Your task to perform on an android device: Open Reddit.com Image 0: 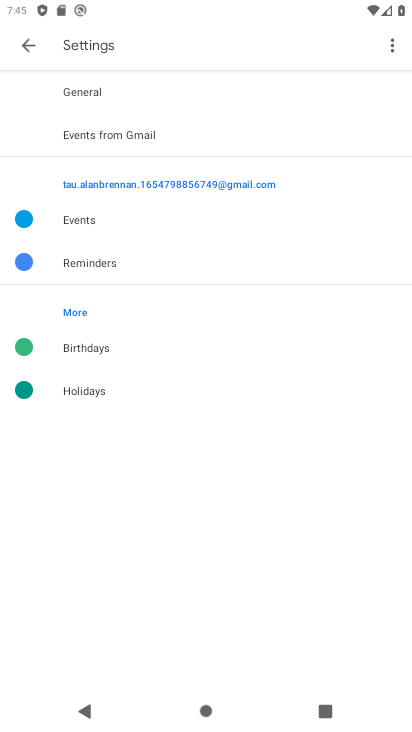
Step 0: press home button
Your task to perform on an android device: Open Reddit.com Image 1: 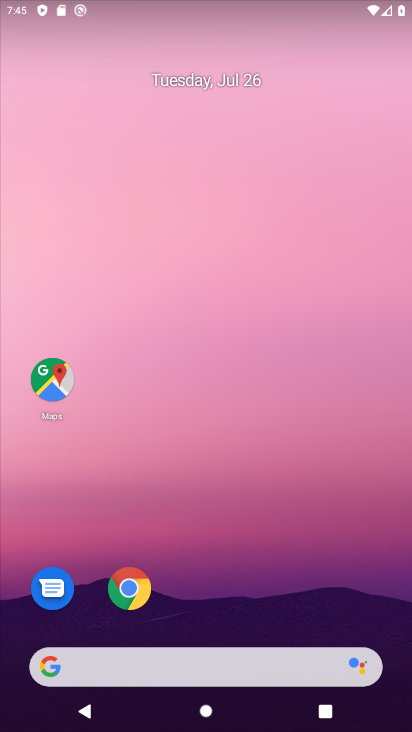
Step 1: drag from (222, 644) to (234, 203)
Your task to perform on an android device: Open Reddit.com Image 2: 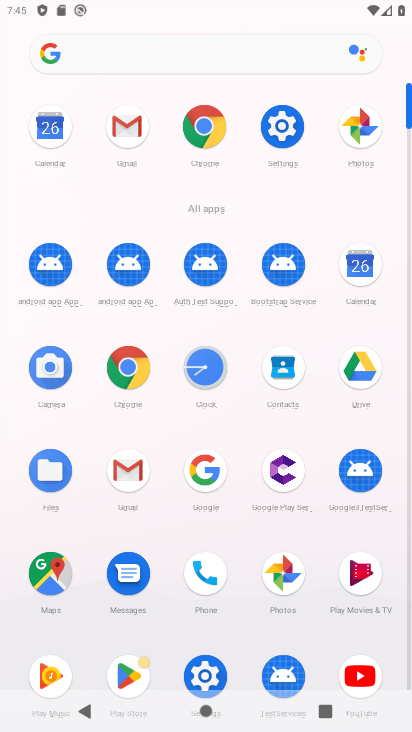
Step 2: click (185, 466)
Your task to perform on an android device: Open Reddit.com Image 3: 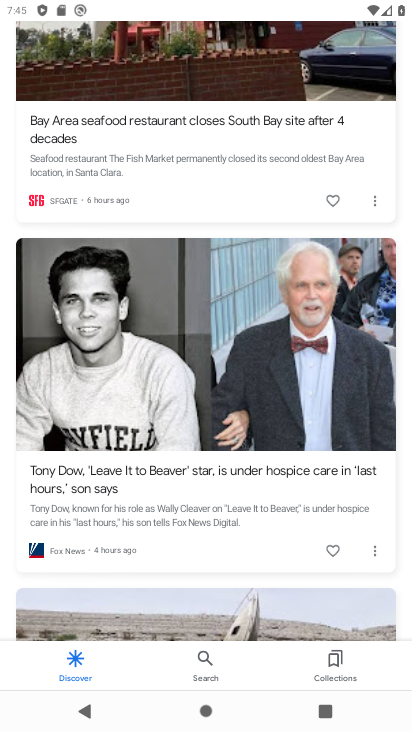
Step 3: drag from (121, 115) to (93, 378)
Your task to perform on an android device: Open Reddit.com Image 4: 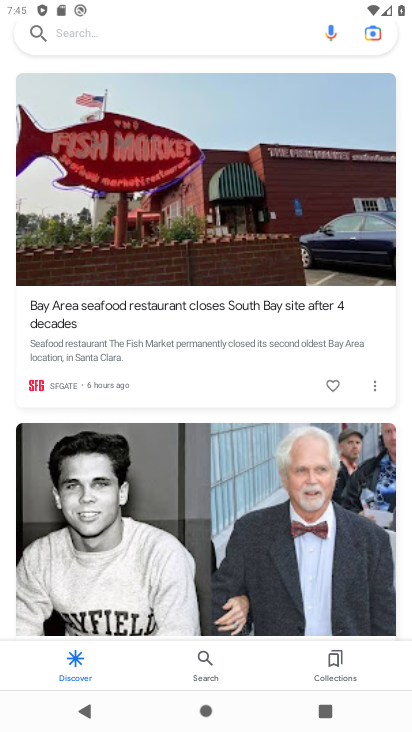
Step 4: click (102, 31)
Your task to perform on an android device: Open Reddit.com Image 5: 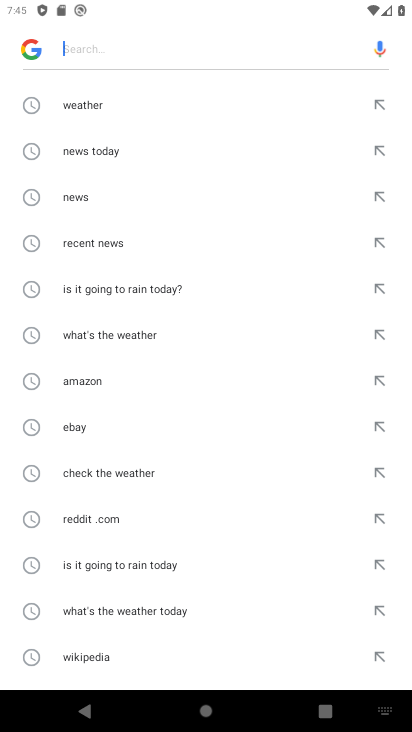
Step 5: click (97, 521)
Your task to perform on an android device: Open Reddit.com Image 6: 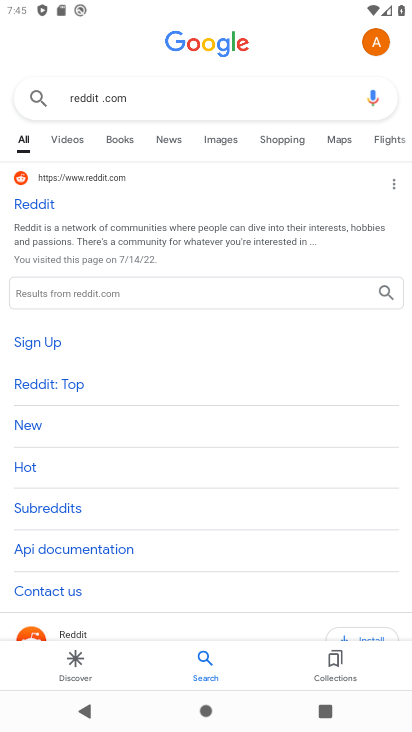
Step 6: task complete